Your task to perform on an android device: delete browsing data in the chrome app Image 0: 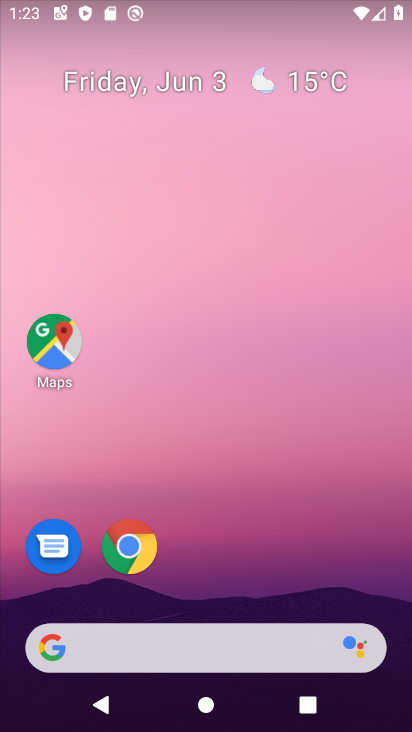
Step 0: drag from (248, 572) to (203, 121)
Your task to perform on an android device: delete browsing data in the chrome app Image 1: 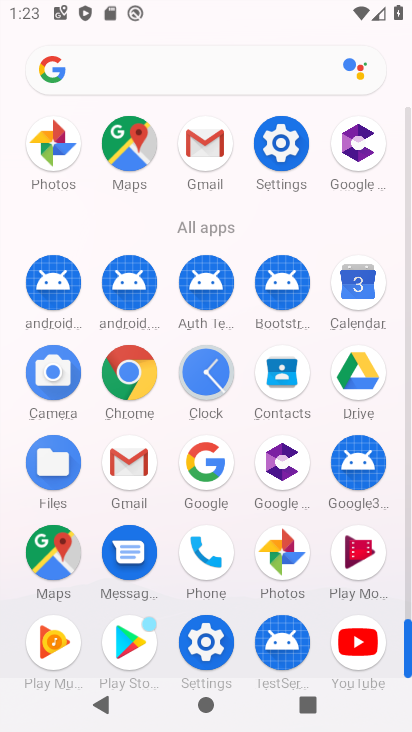
Step 1: click (147, 378)
Your task to perform on an android device: delete browsing data in the chrome app Image 2: 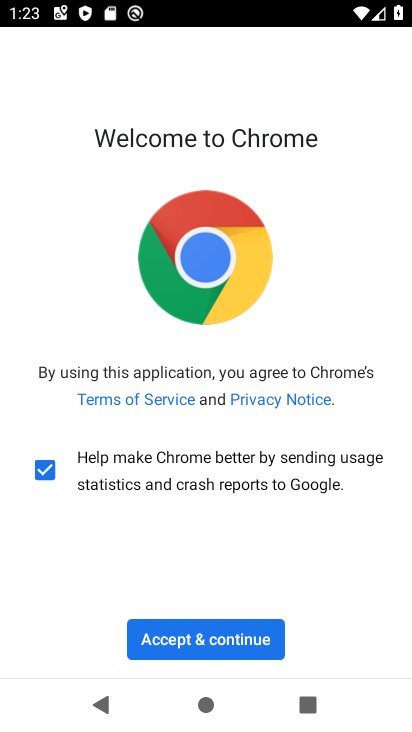
Step 2: click (209, 649)
Your task to perform on an android device: delete browsing data in the chrome app Image 3: 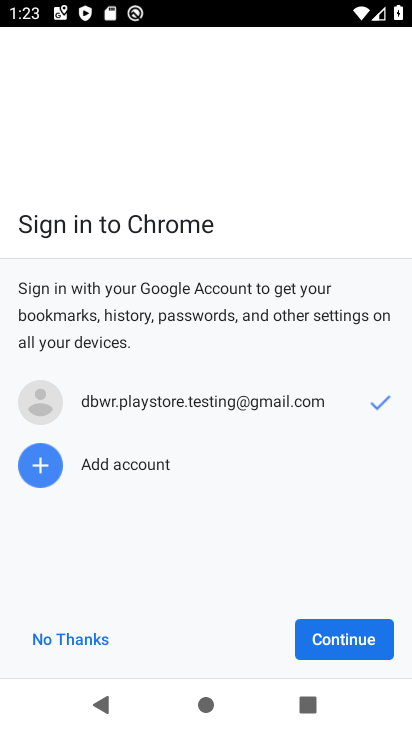
Step 3: click (84, 634)
Your task to perform on an android device: delete browsing data in the chrome app Image 4: 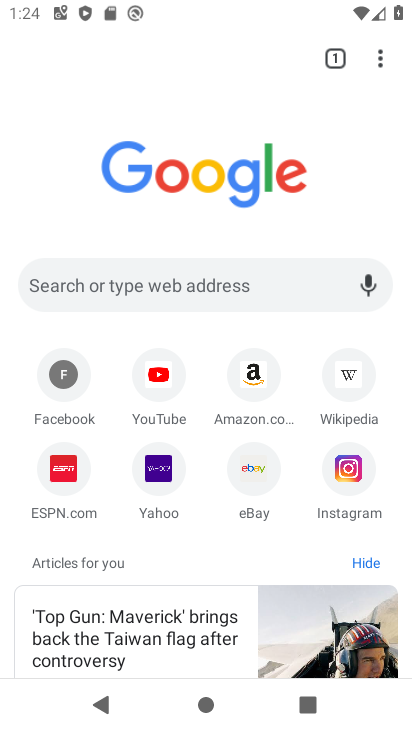
Step 4: task complete